Your task to perform on an android device: make emails show in primary in the gmail app Image 0: 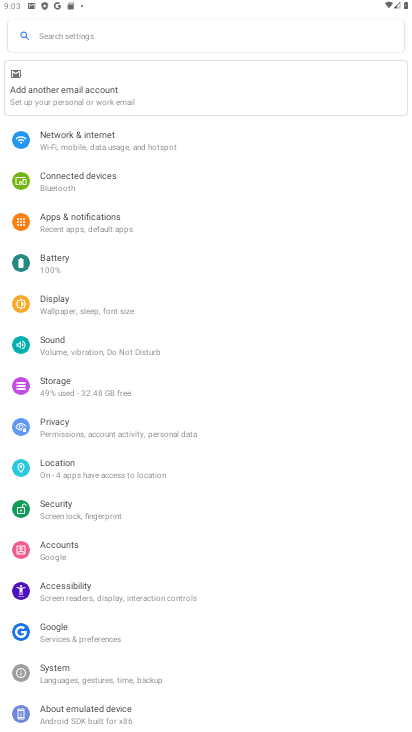
Step 0: press home button
Your task to perform on an android device: make emails show in primary in the gmail app Image 1: 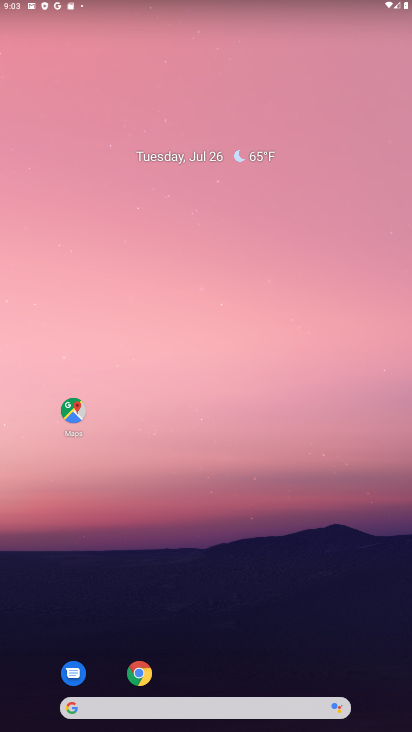
Step 1: drag from (385, 685) to (325, 169)
Your task to perform on an android device: make emails show in primary in the gmail app Image 2: 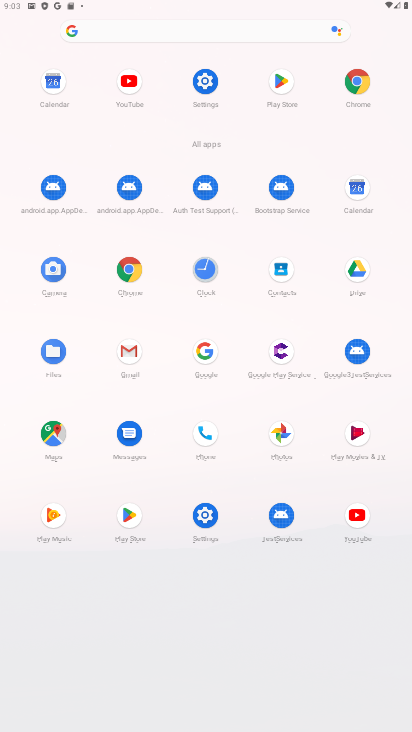
Step 2: click (126, 350)
Your task to perform on an android device: make emails show in primary in the gmail app Image 3: 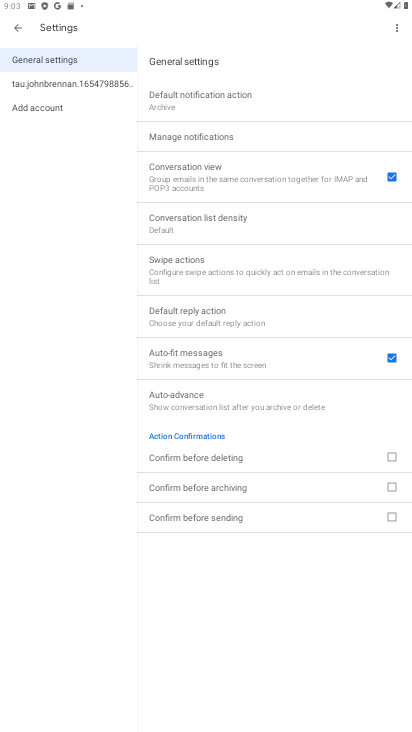
Step 3: click (59, 89)
Your task to perform on an android device: make emails show in primary in the gmail app Image 4: 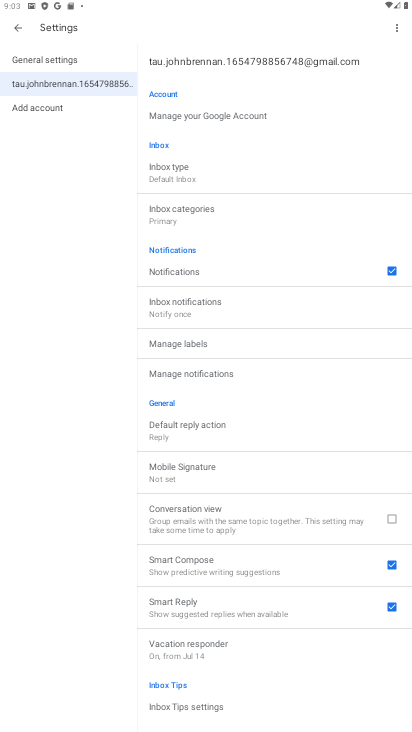
Step 4: click (164, 212)
Your task to perform on an android device: make emails show in primary in the gmail app Image 5: 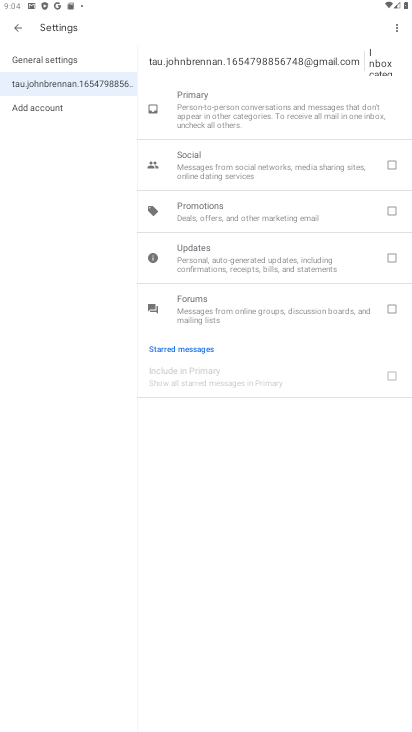
Step 5: task complete